Your task to perform on an android device: Open settings Image 0: 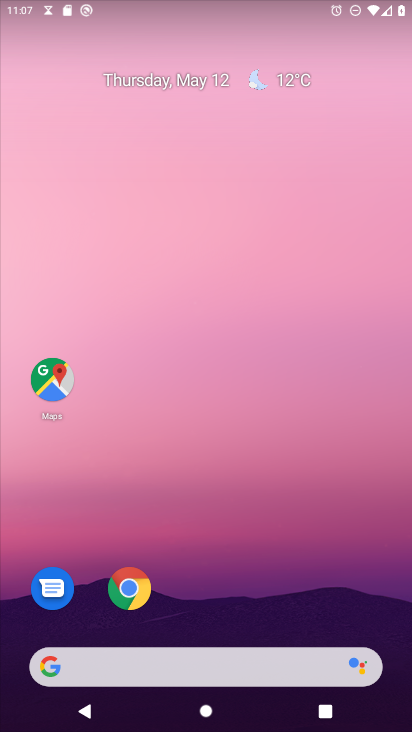
Step 0: drag from (237, 546) to (266, 111)
Your task to perform on an android device: Open settings Image 1: 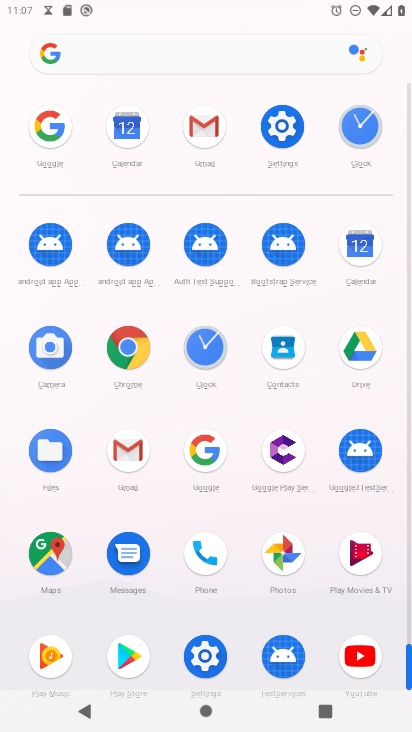
Step 1: click (284, 125)
Your task to perform on an android device: Open settings Image 2: 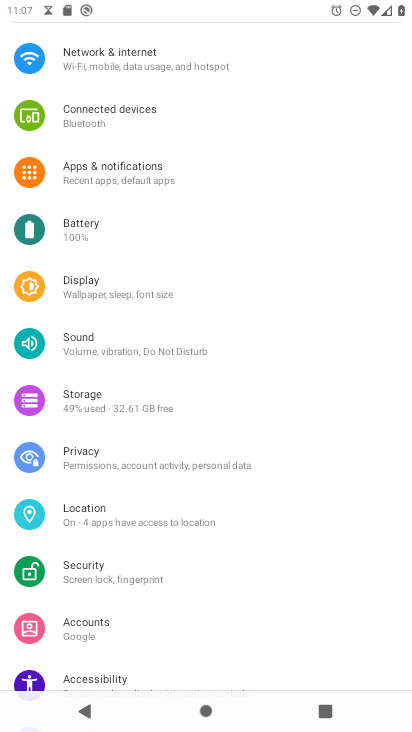
Step 2: task complete